Your task to perform on an android device: uninstall "Google Chat" Image 0: 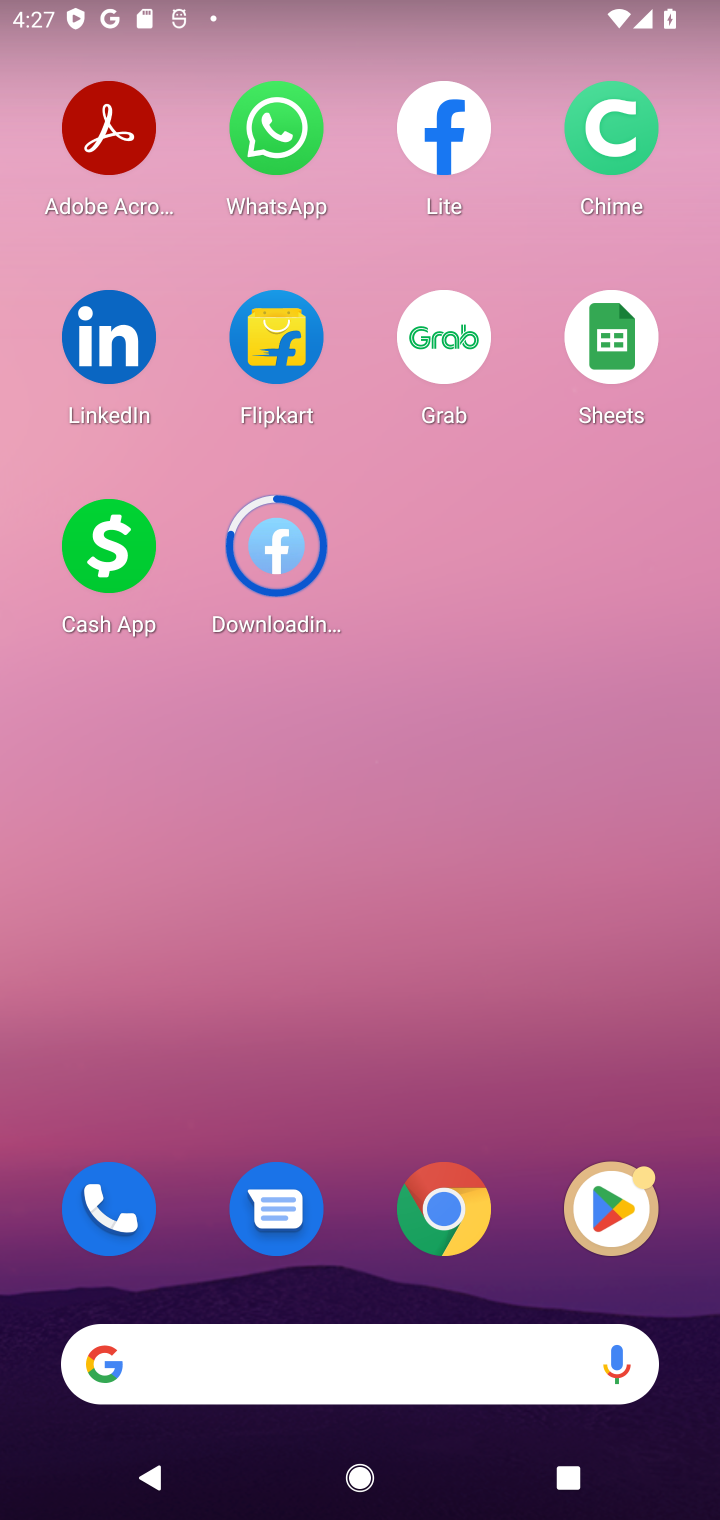
Step 0: click (633, 1203)
Your task to perform on an android device: uninstall "Google Chat" Image 1: 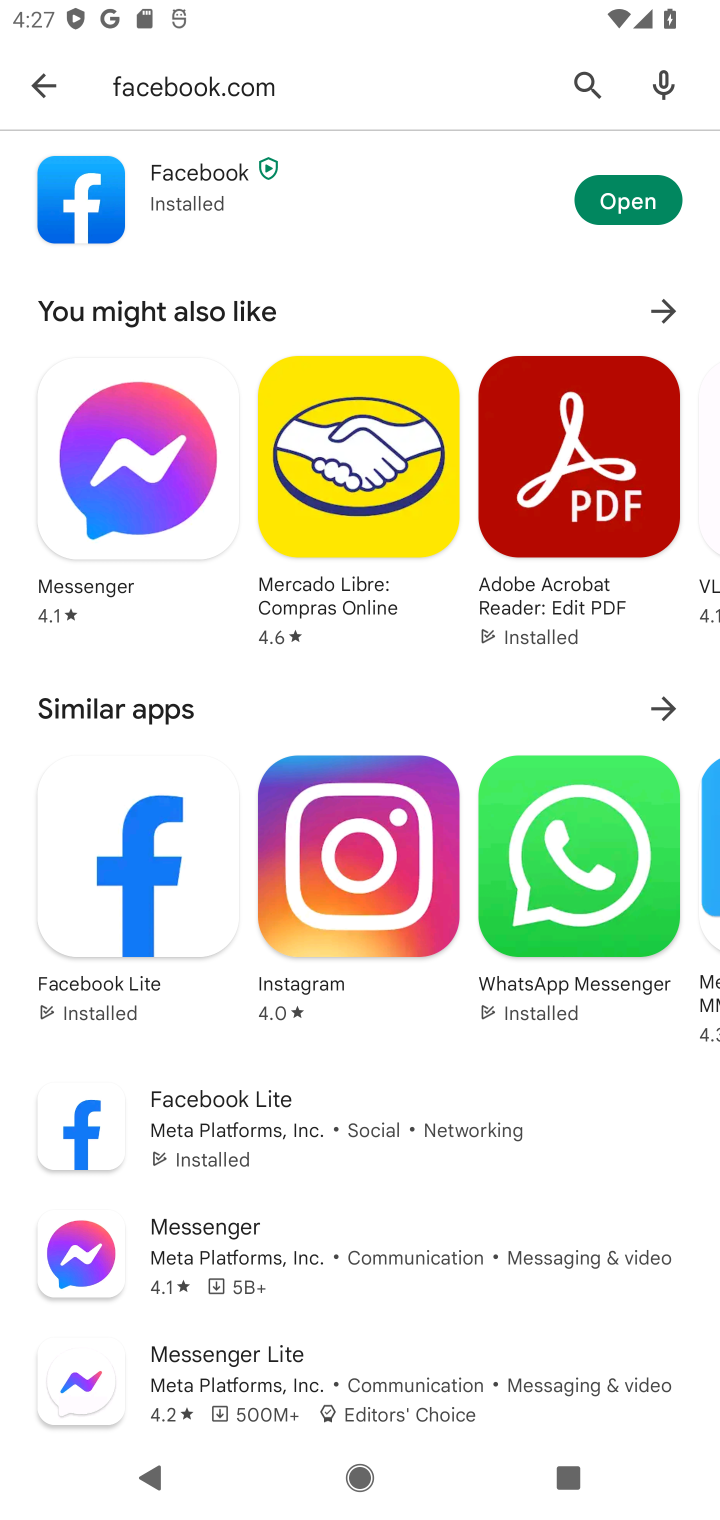
Step 1: click (578, 88)
Your task to perform on an android device: uninstall "Google Chat" Image 2: 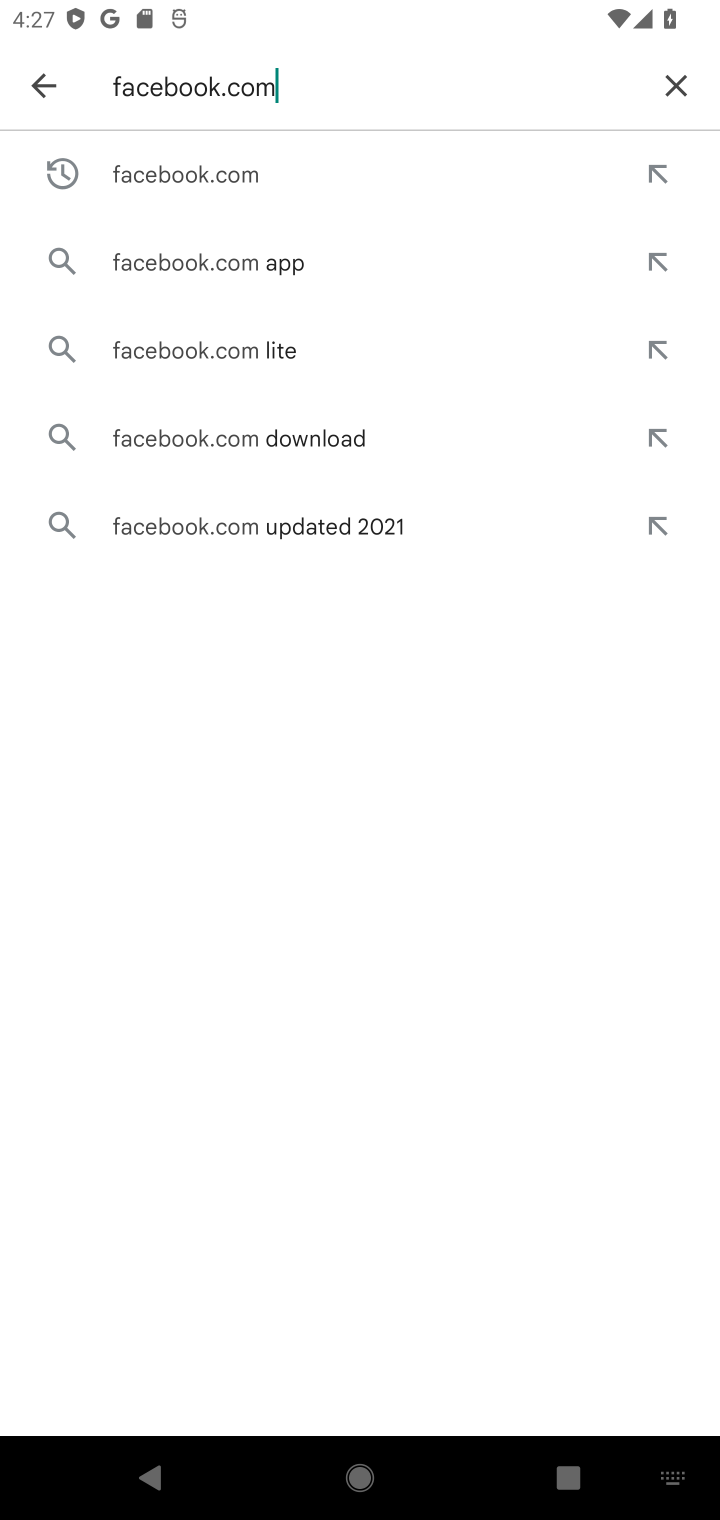
Step 2: click (649, 101)
Your task to perform on an android device: uninstall "Google Chat" Image 3: 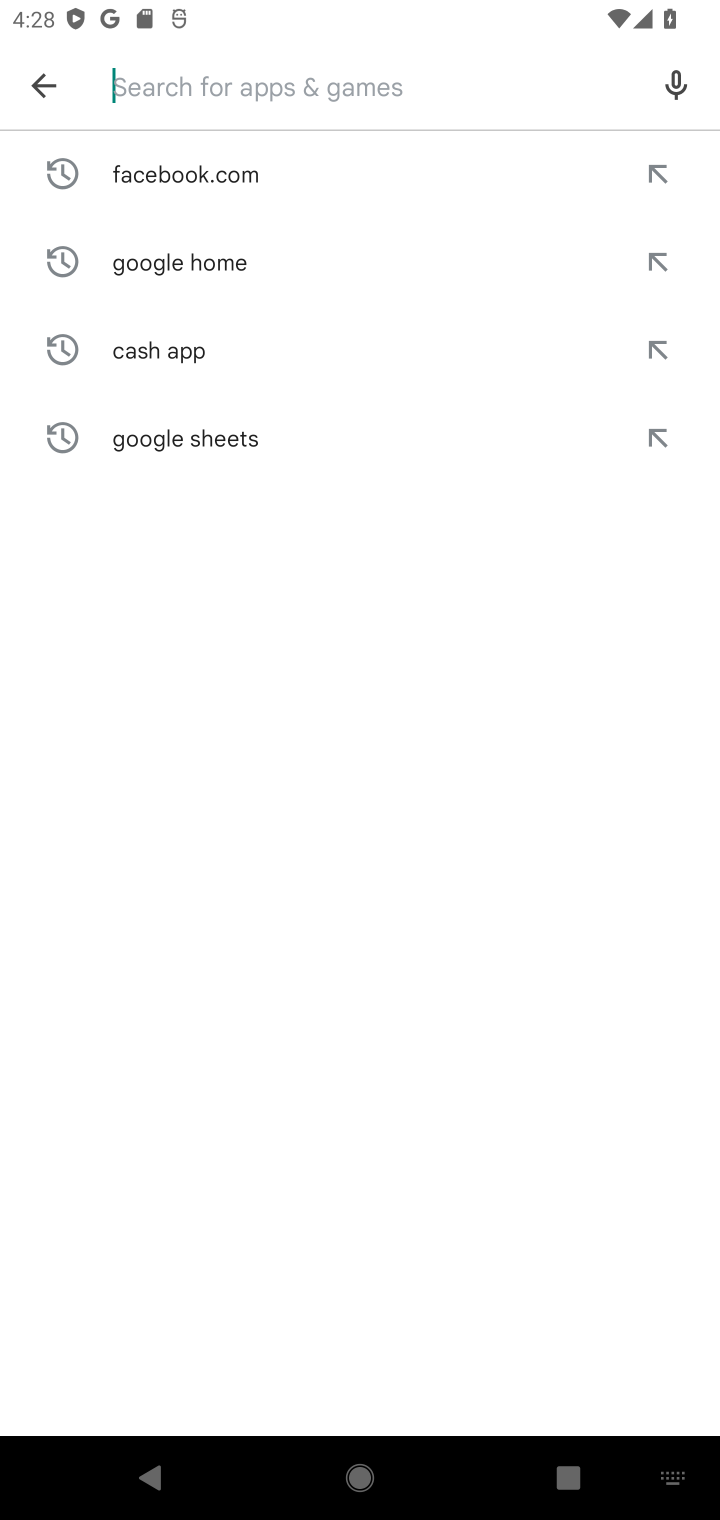
Step 3: type "google chat"
Your task to perform on an android device: uninstall "Google Chat" Image 4: 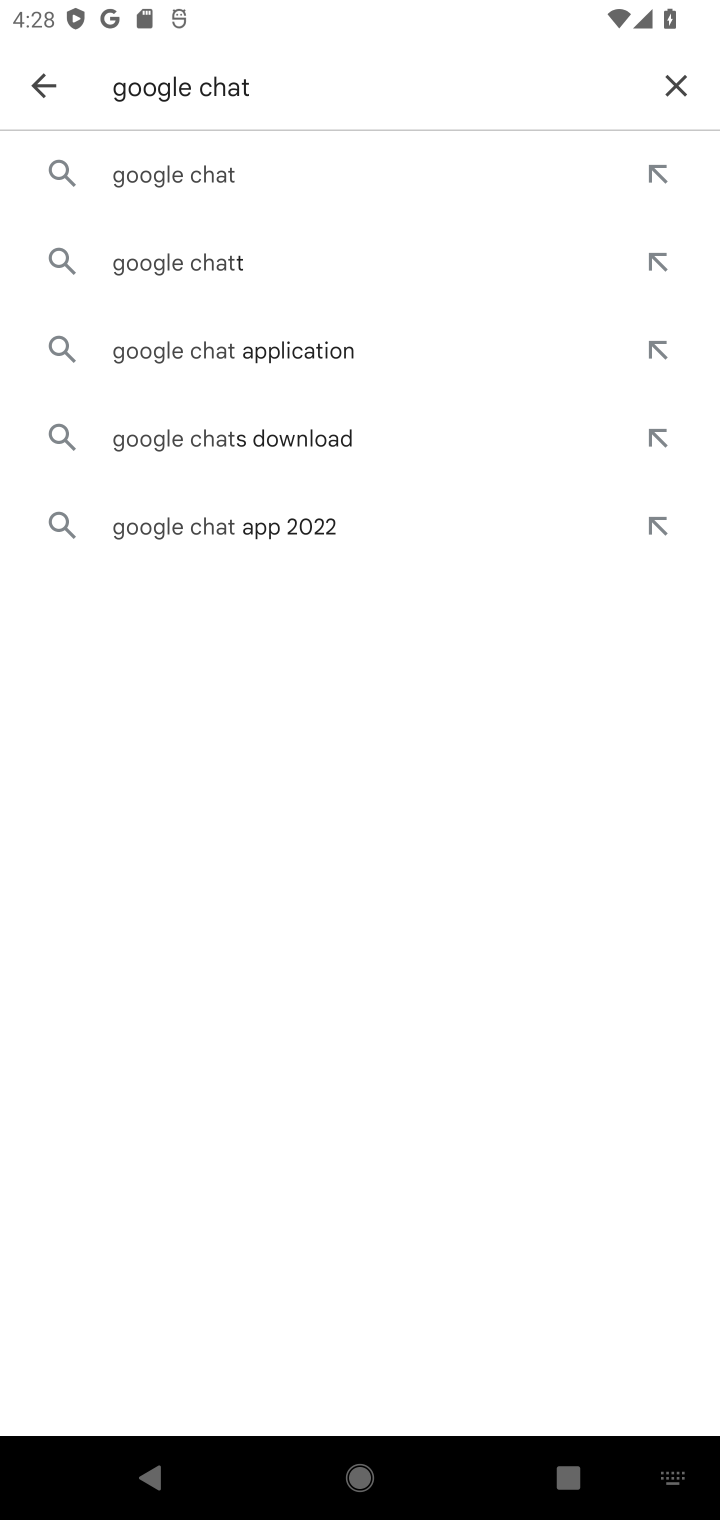
Step 4: click (324, 181)
Your task to perform on an android device: uninstall "Google Chat" Image 5: 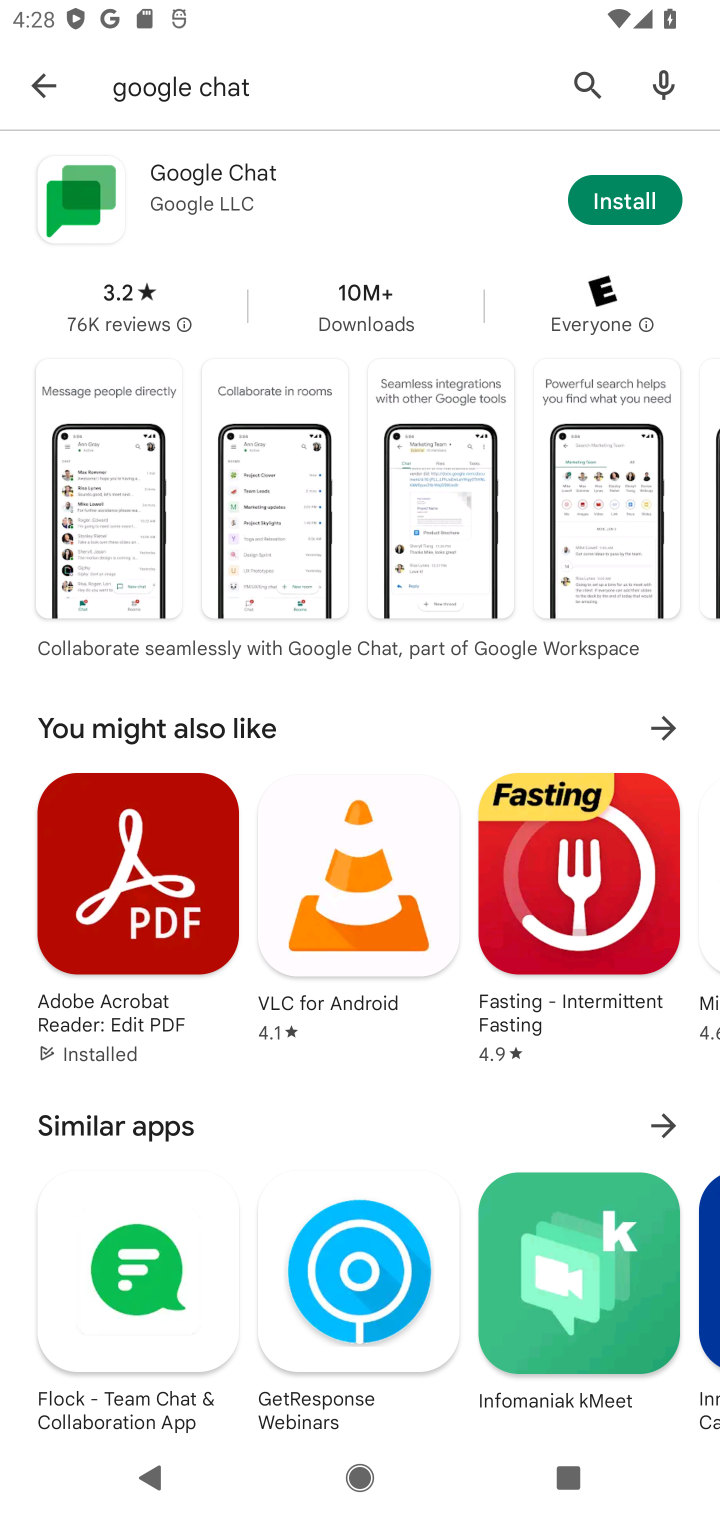
Step 5: click (596, 190)
Your task to perform on an android device: uninstall "Google Chat" Image 6: 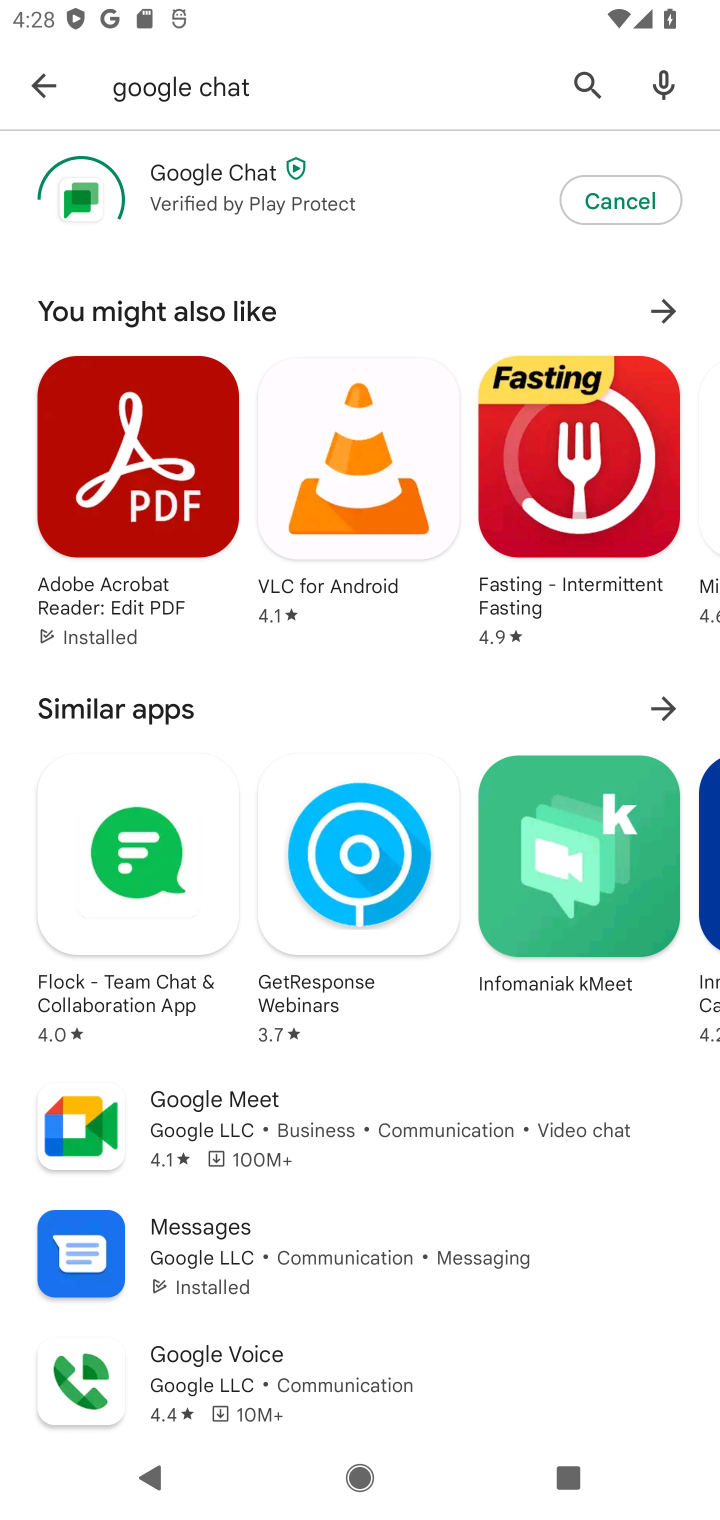
Step 6: task complete